Your task to perform on an android device: clear history in the chrome app Image 0: 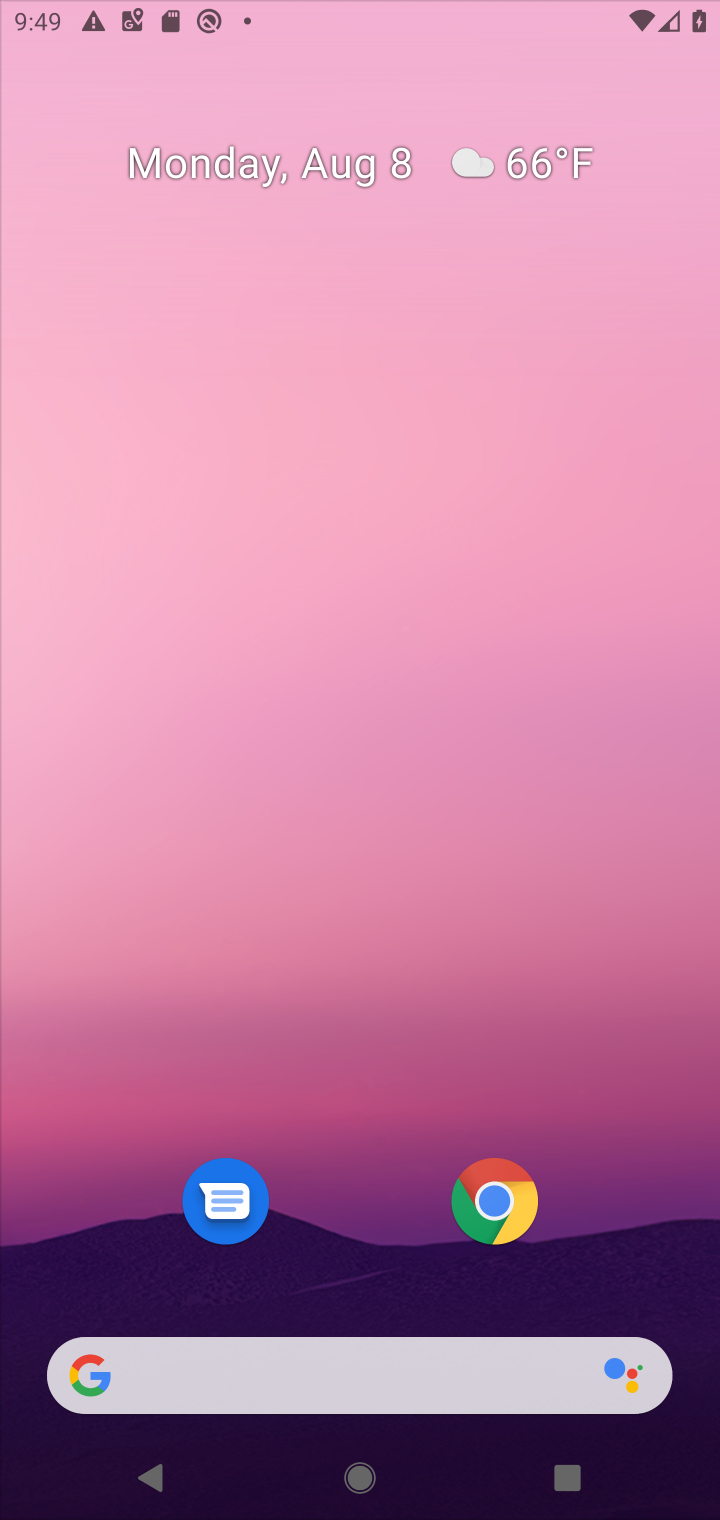
Step 0: press home button
Your task to perform on an android device: clear history in the chrome app Image 1: 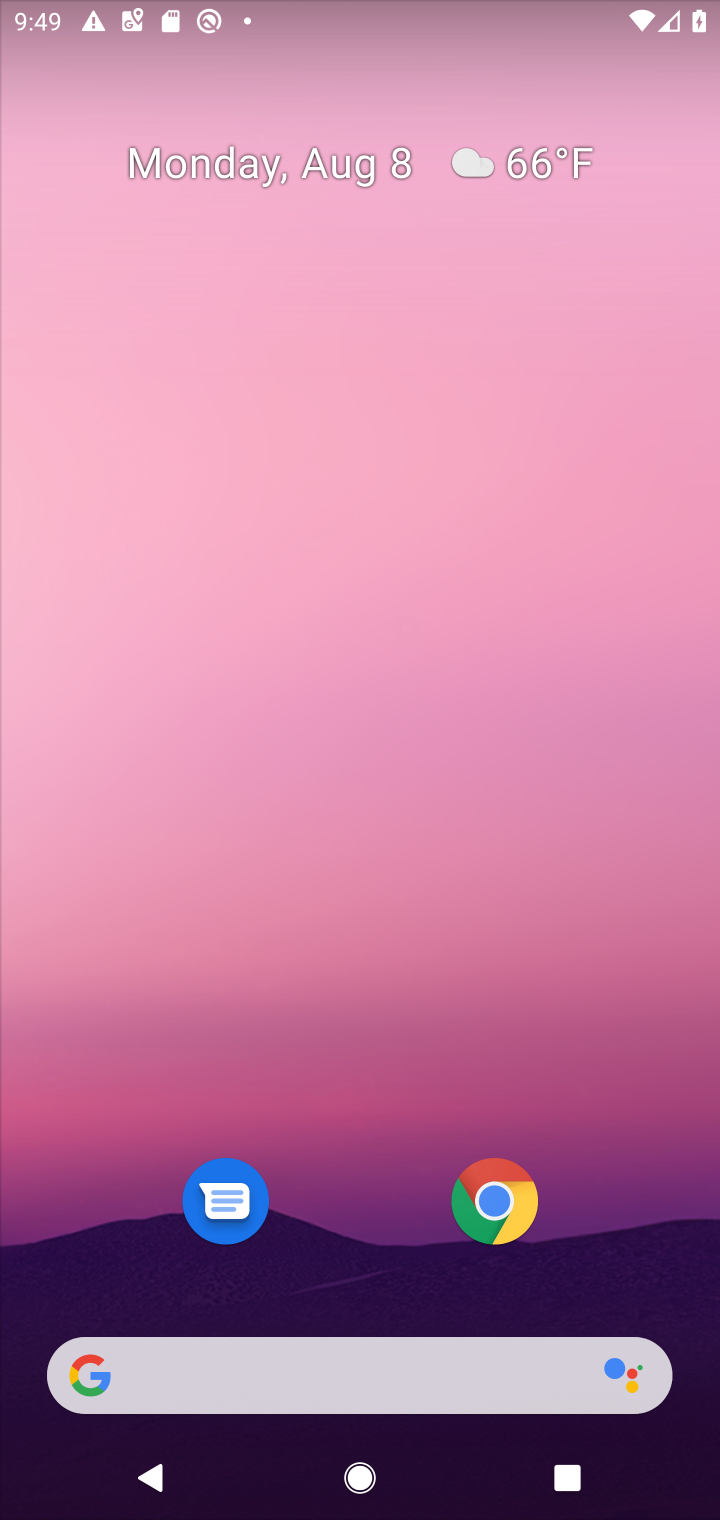
Step 1: drag from (587, 1281) to (682, 341)
Your task to perform on an android device: clear history in the chrome app Image 2: 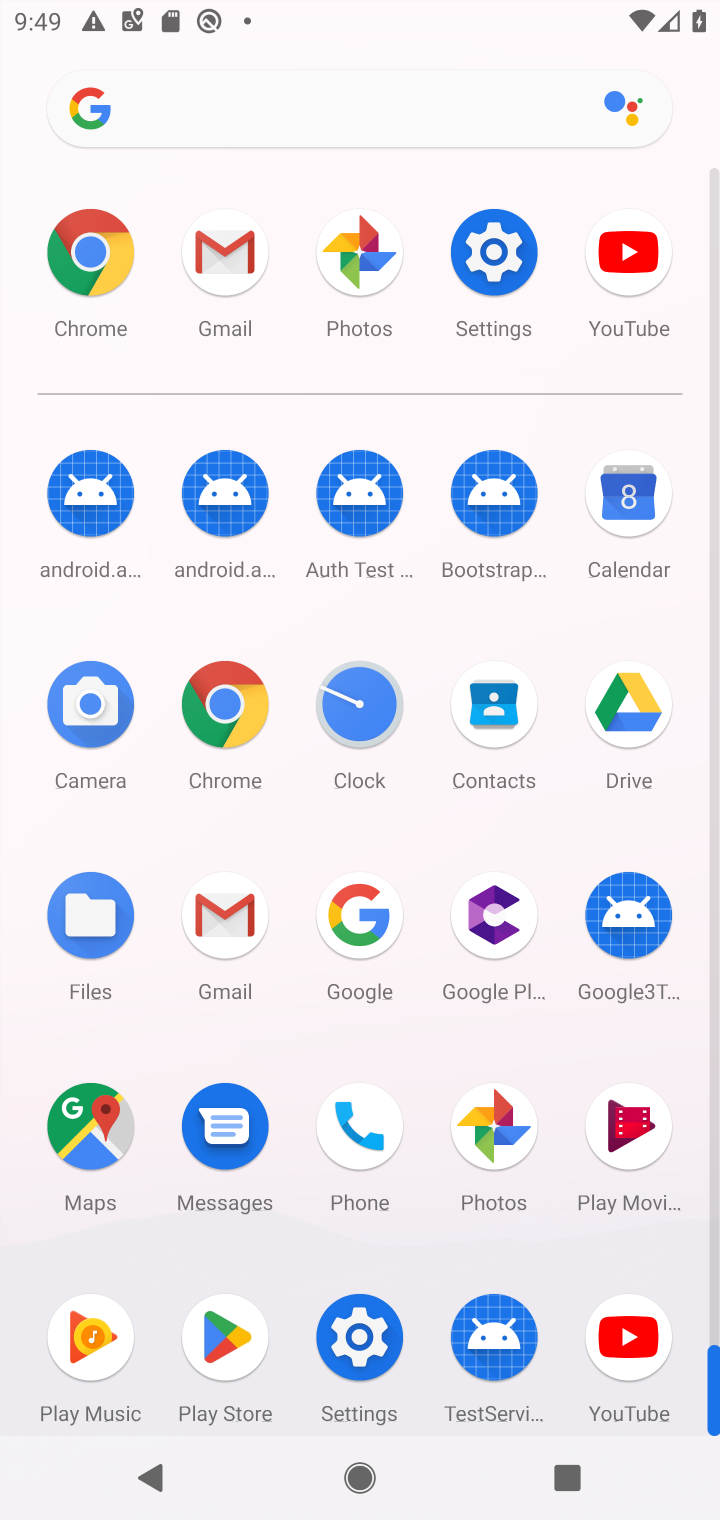
Step 2: click (218, 725)
Your task to perform on an android device: clear history in the chrome app Image 3: 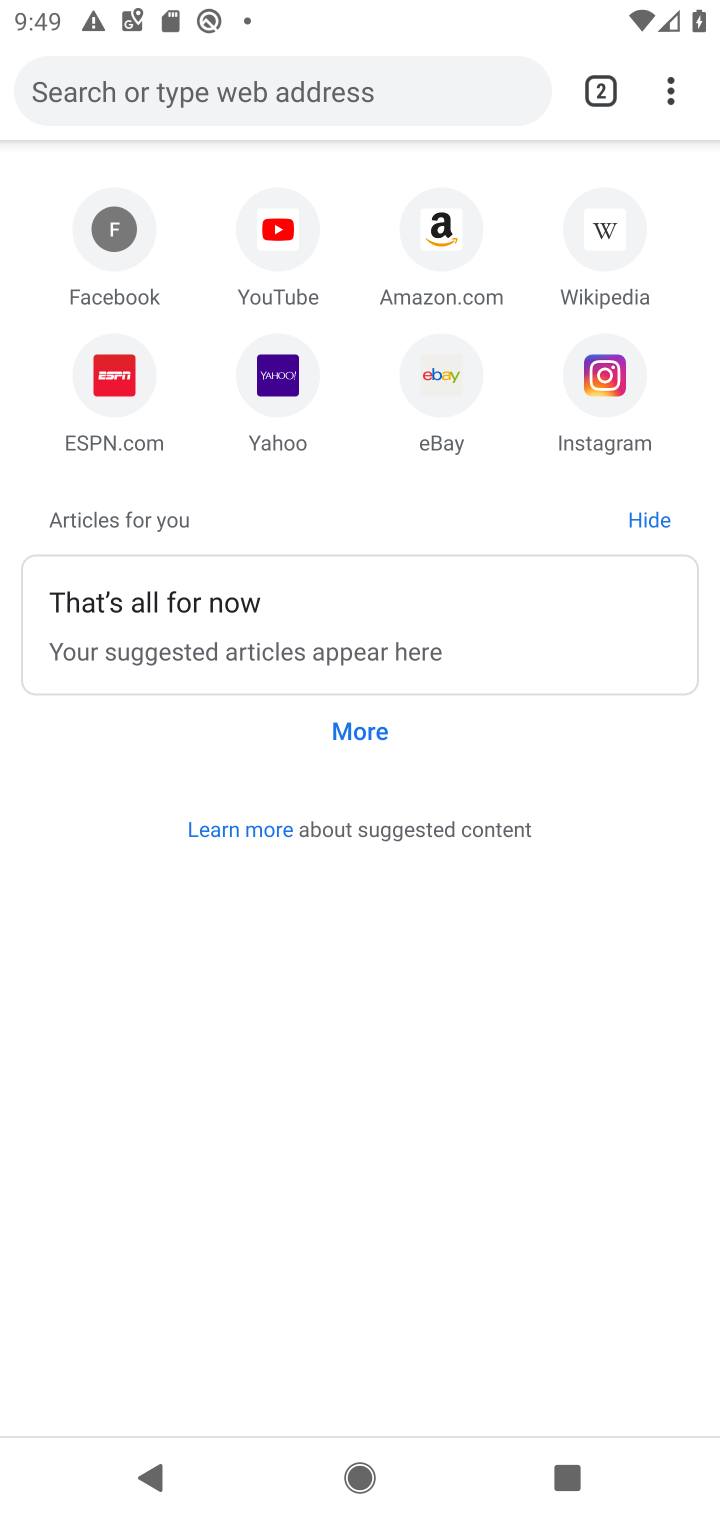
Step 3: click (667, 97)
Your task to perform on an android device: clear history in the chrome app Image 4: 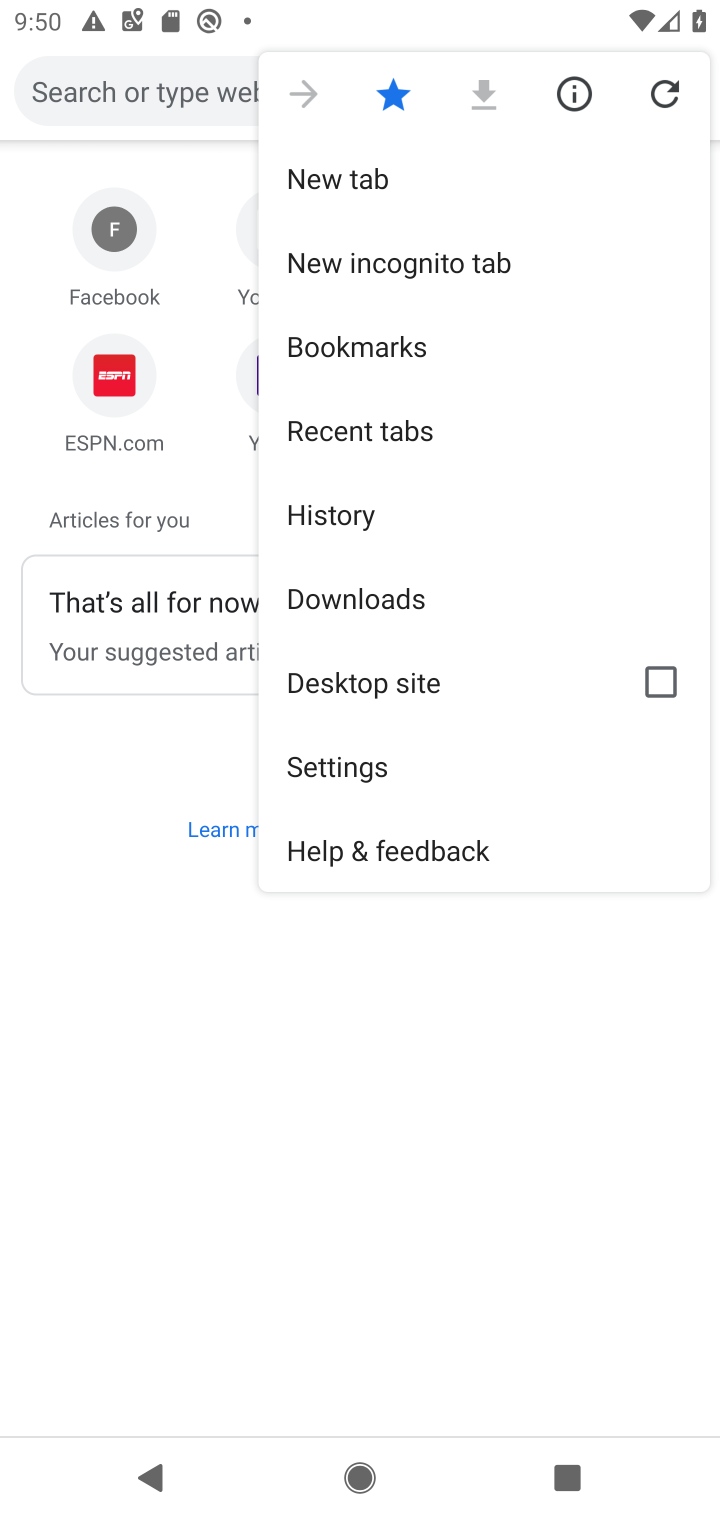
Step 4: click (368, 520)
Your task to perform on an android device: clear history in the chrome app Image 5: 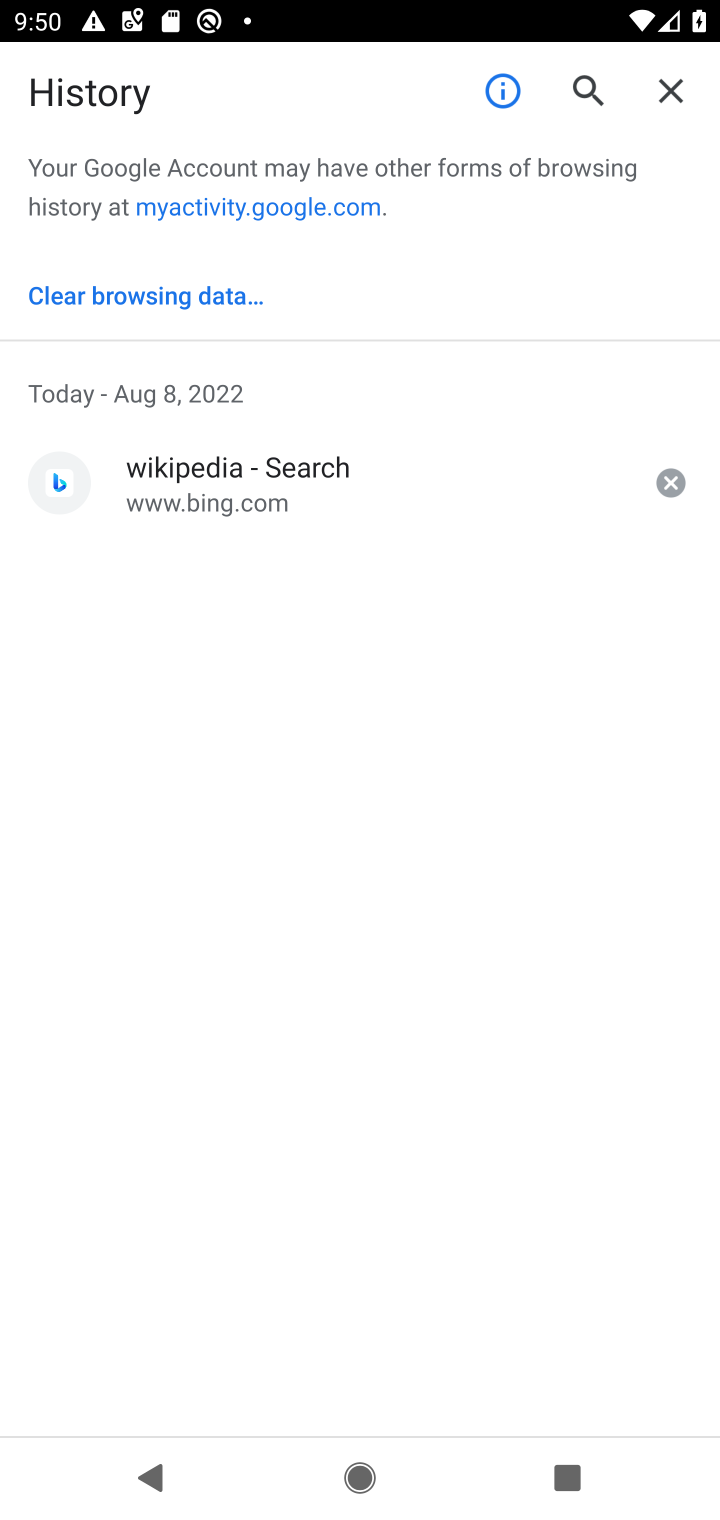
Step 5: click (242, 302)
Your task to perform on an android device: clear history in the chrome app Image 6: 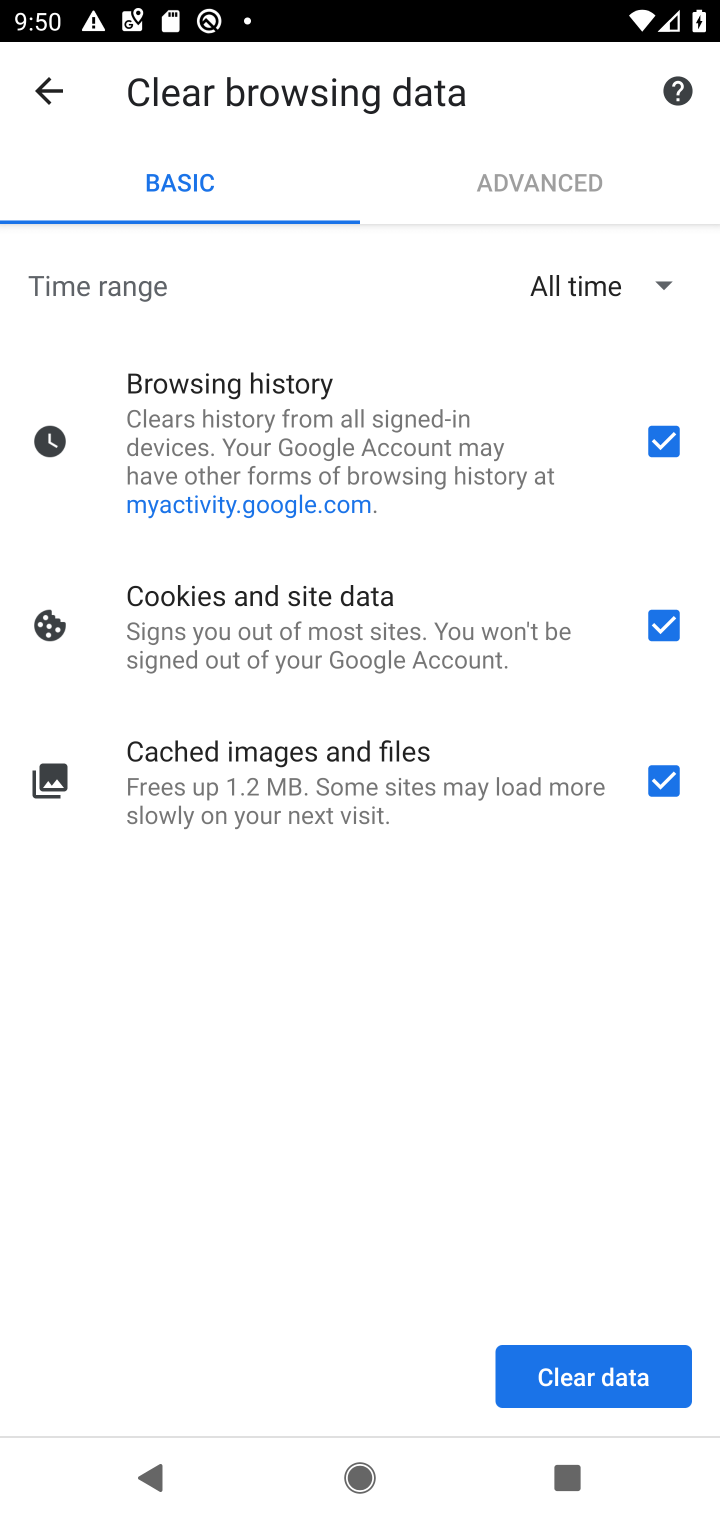
Step 6: click (568, 1374)
Your task to perform on an android device: clear history in the chrome app Image 7: 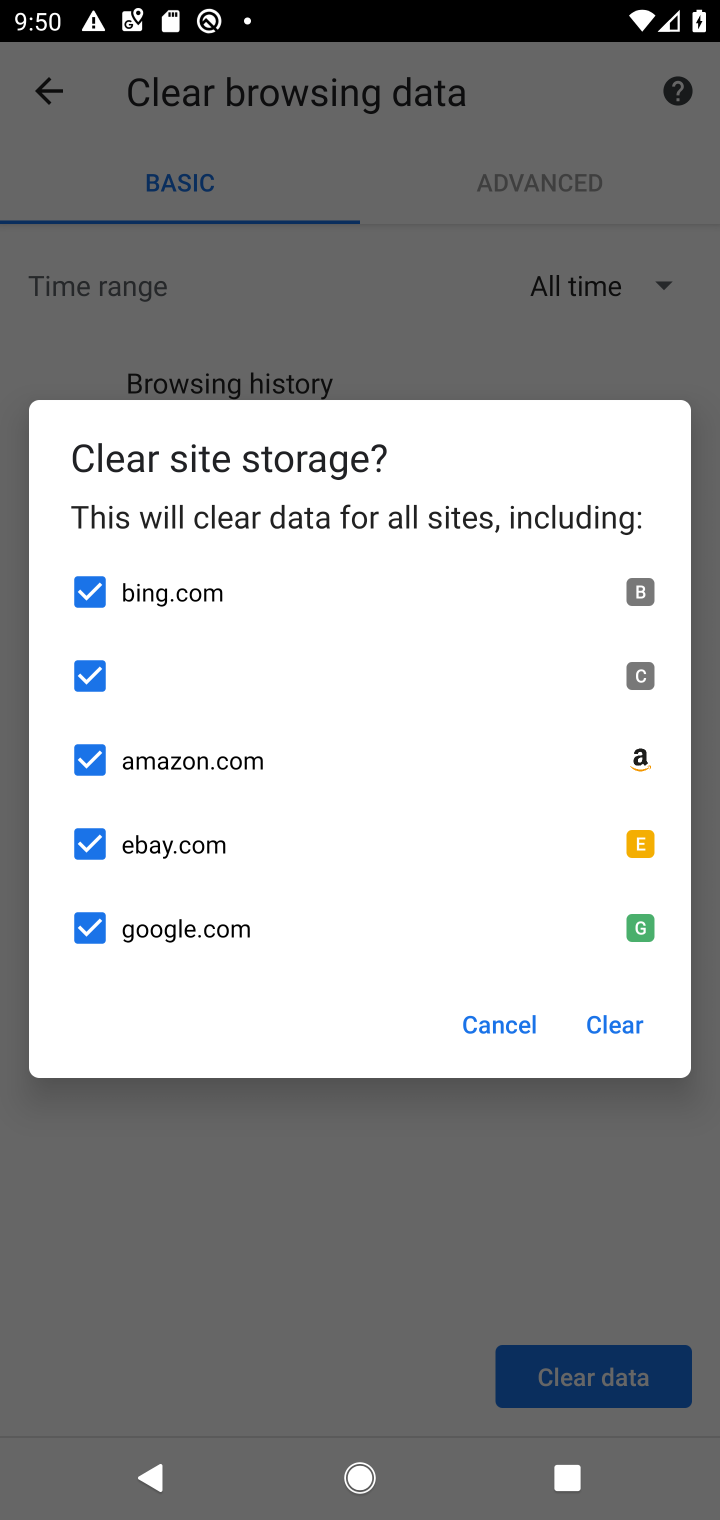
Step 7: click (613, 1014)
Your task to perform on an android device: clear history in the chrome app Image 8: 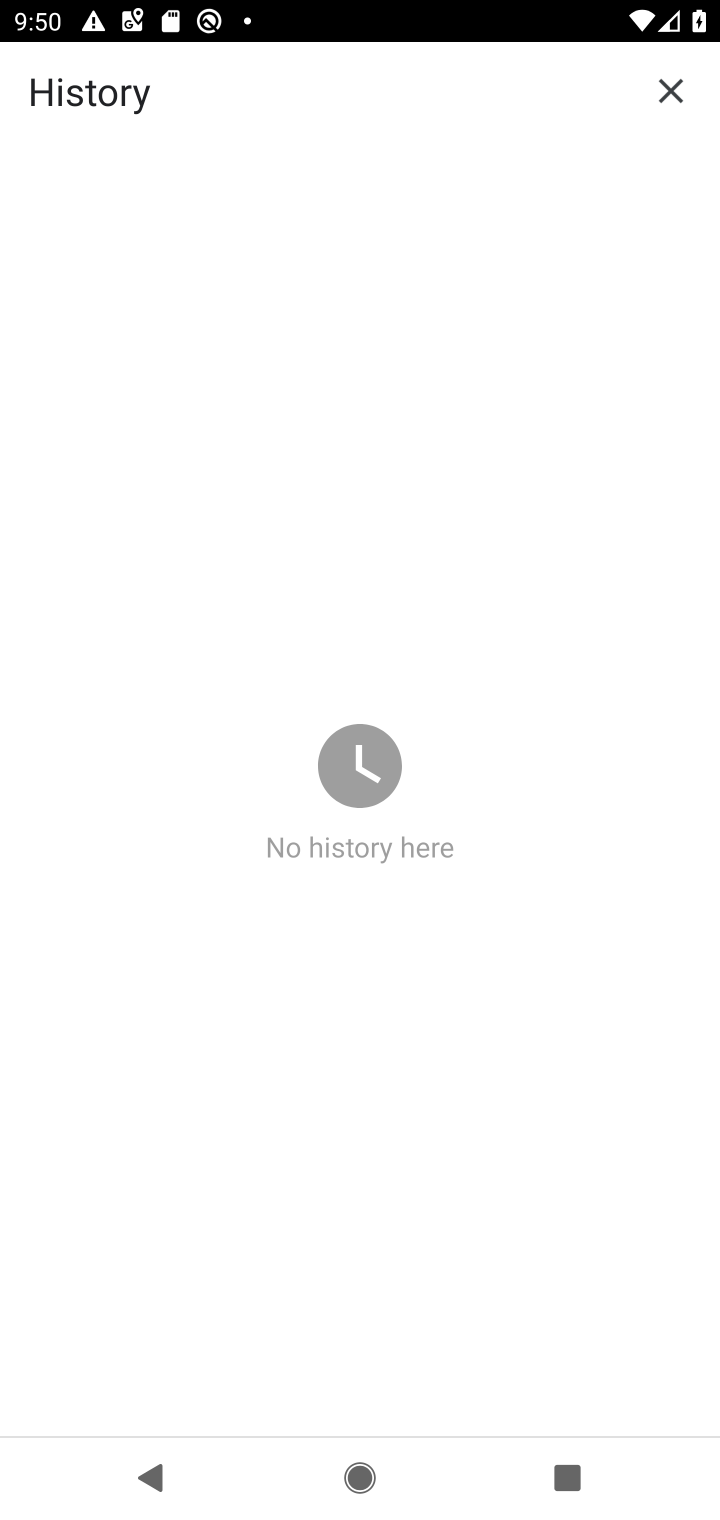
Step 8: task complete